Your task to perform on an android device: open the mobile data screen to see how much data has been used Image 0: 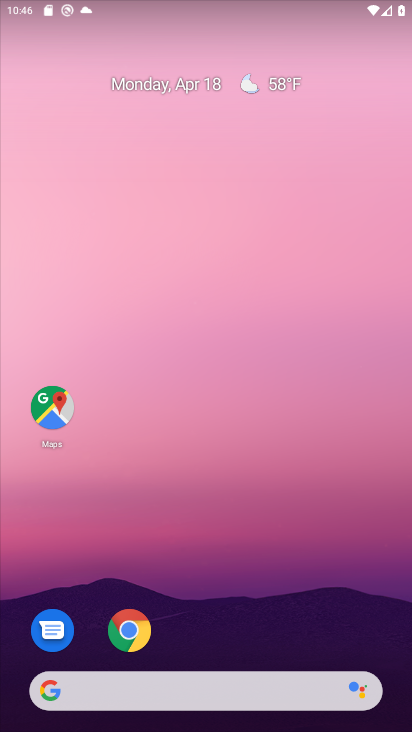
Step 0: click (55, 409)
Your task to perform on an android device: open the mobile data screen to see how much data has been used Image 1: 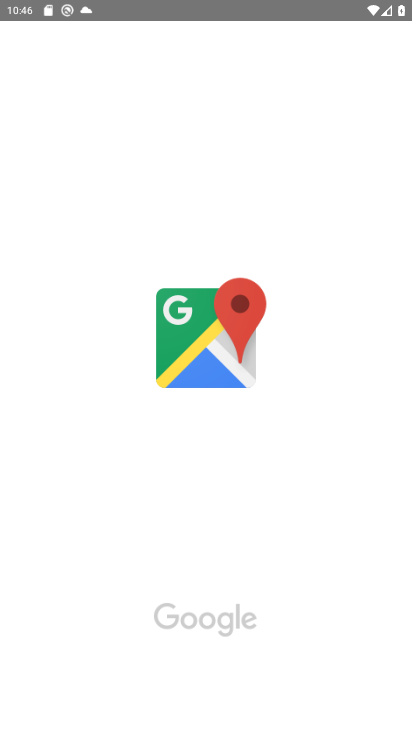
Step 1: press home button
Your task to perform on an android device: open the mobile data screen to see how much data has been used Image 2: 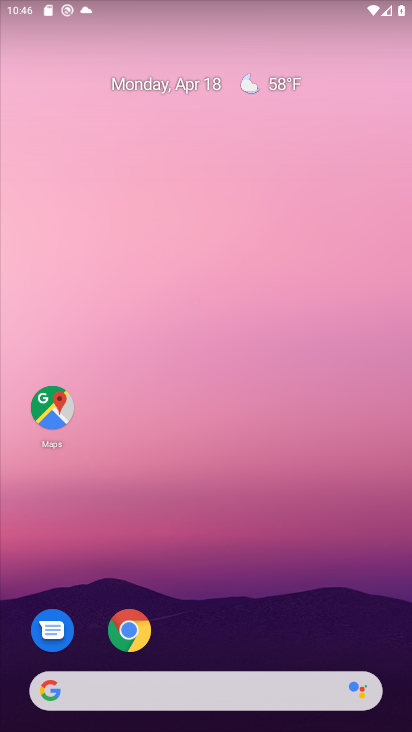
Step 2: drag from (211, 637) to (211, 172)
Your task to perform on an android device: open the mobile data screen to see how much data has been used Image 3: 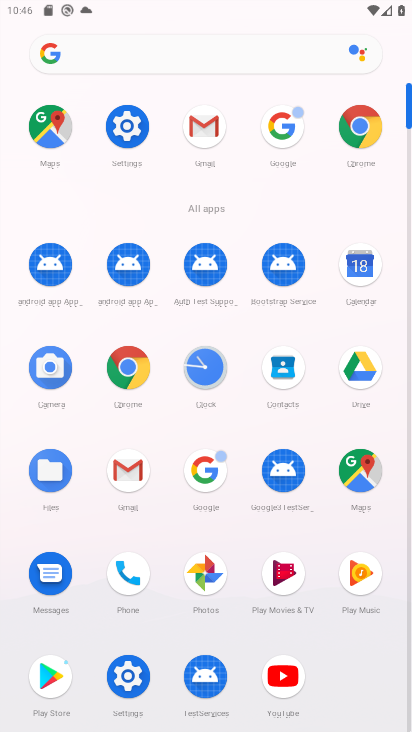
Step 3: click (126, 124)
Your task to perform on an android device: open the mobile data screen to see how much data has been used Image 4: 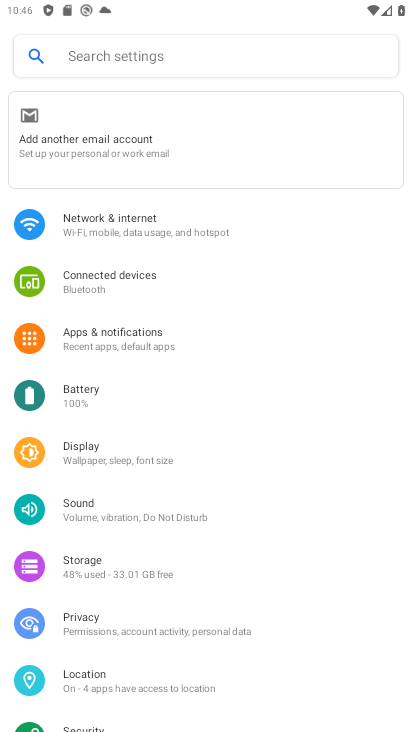
Step 4: click (200, 244)
Your task to perform on an android device: open the mobile data screen to see how much data has been used Image 5: 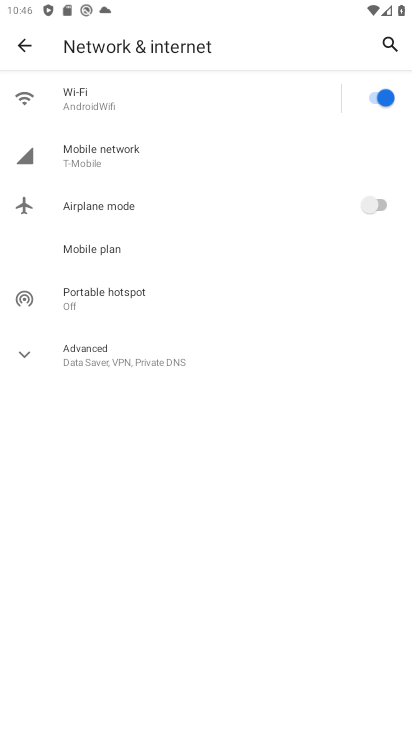
Step 5: click (139, 157)
Your task to perform on an android device: open the mobile data screen to see how much data has been used Image 6: 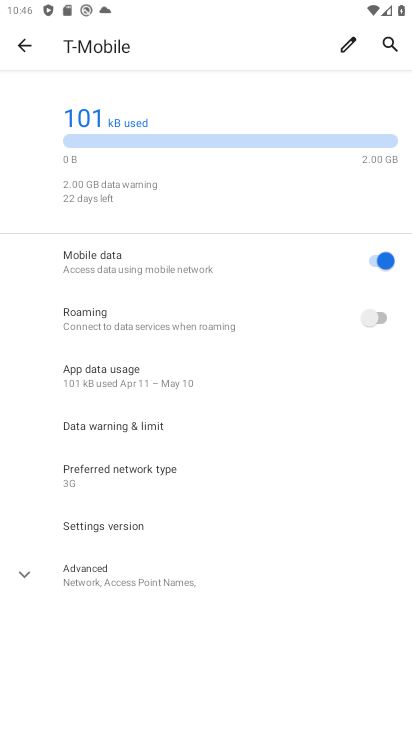
Step 6: task complete